Your task to perform on an android device: Open display settings Image 0: 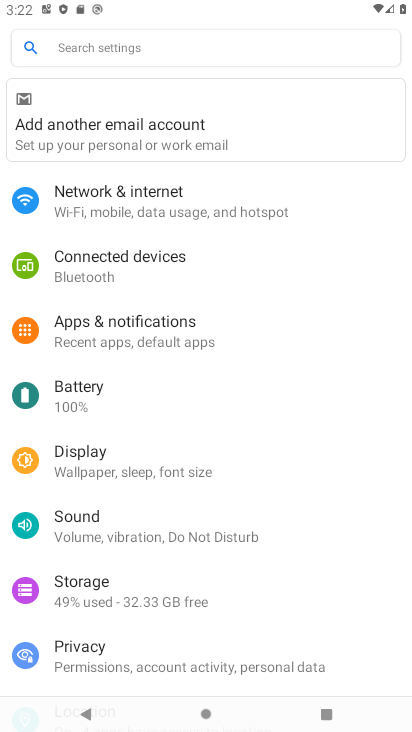
Step 0: click (67, 460)
Your task to perform on an android device: Open display settings Image 1: 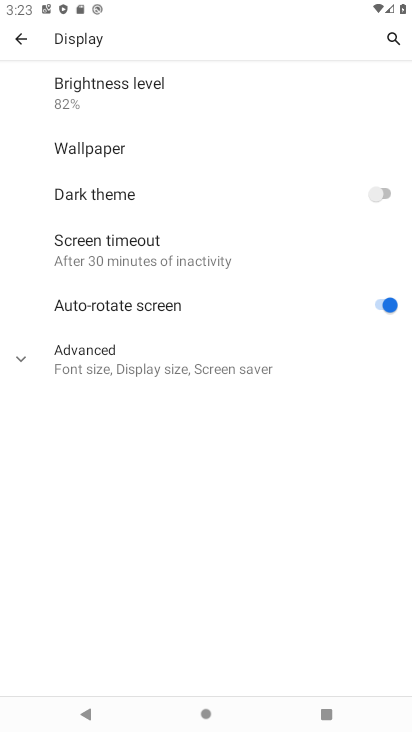
Step 1: click (24, 356)
Your task to perform on an android device: Open display settings Image 2: 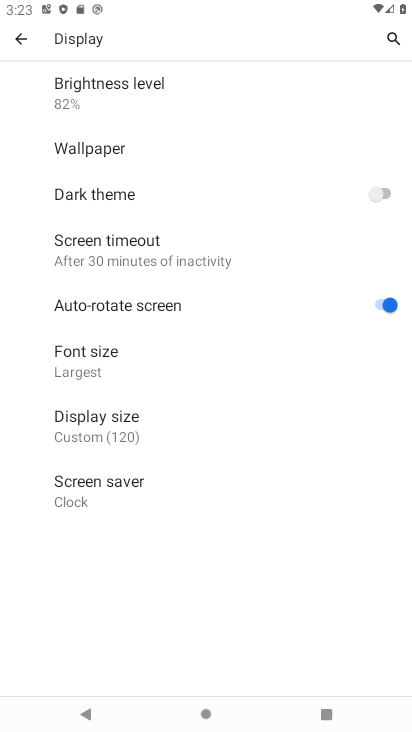
Step 2: task complete